Your task to perform on an android device: Go to calendar. Show me events next week Image 0: 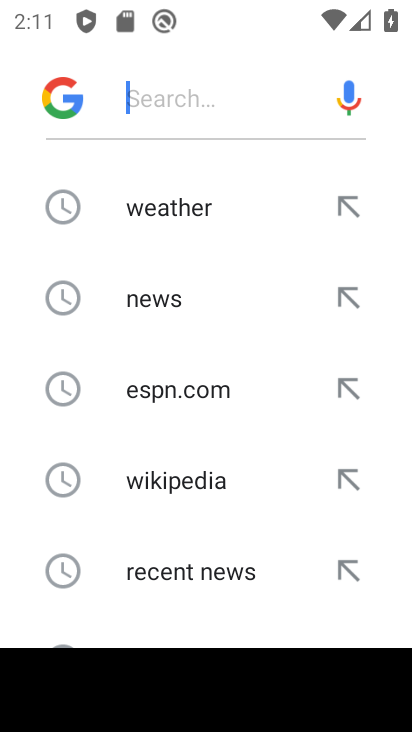
Step 0: press home button
Your task to perform on an android device: Go to calendar. Show me events next week Image 1: 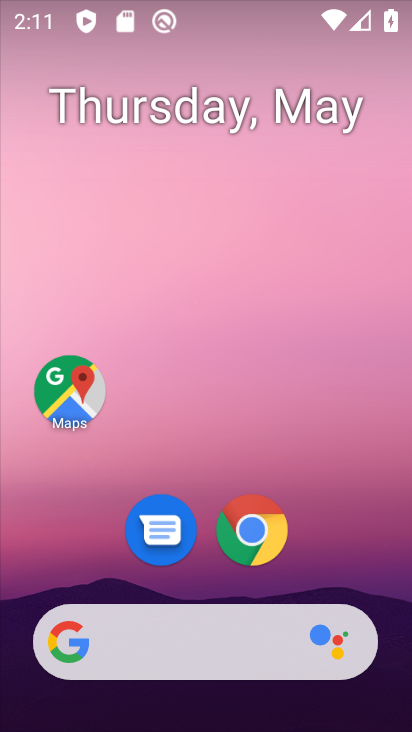
Step 1: drag from (180, 647) to (302, 175)
Your task to perform on an android device: Go to calendar. Show me events next week Image 2: 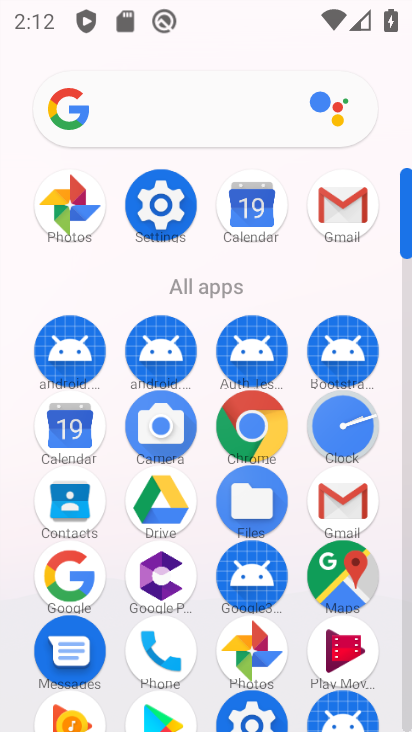
Step 2: click (260, 215)
Your task to perform on an android device: Go to calendar. Show me events next week Image 3: 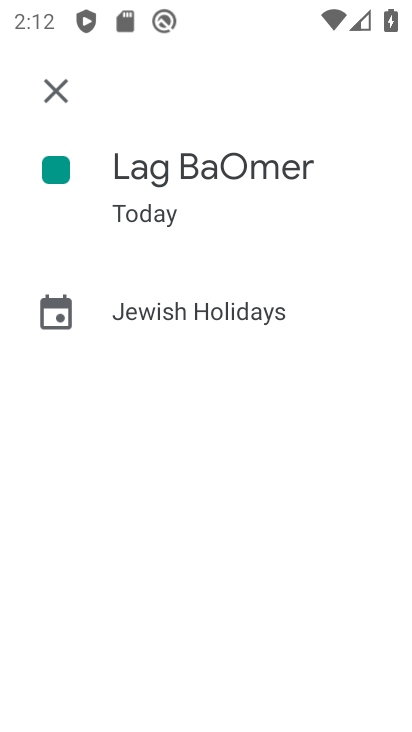
Step 3: click (59, 89)
Your task to perform on an android device: Go to calendar. Show me events next week Image 4: 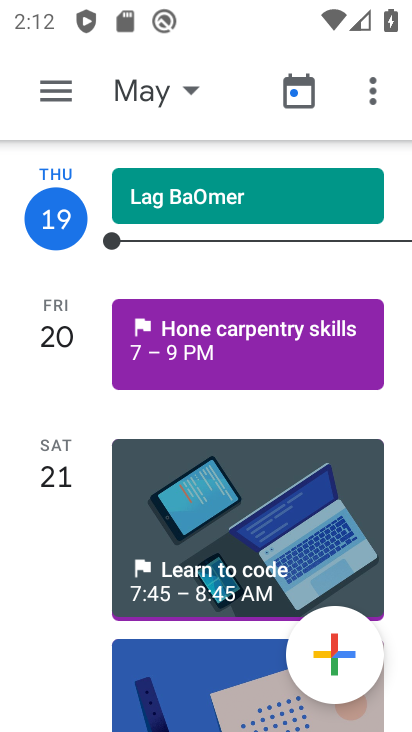
Step 4: click (159, 89)
Your task to perform on an android device: Go to calendar. Show me events next week Image 5: 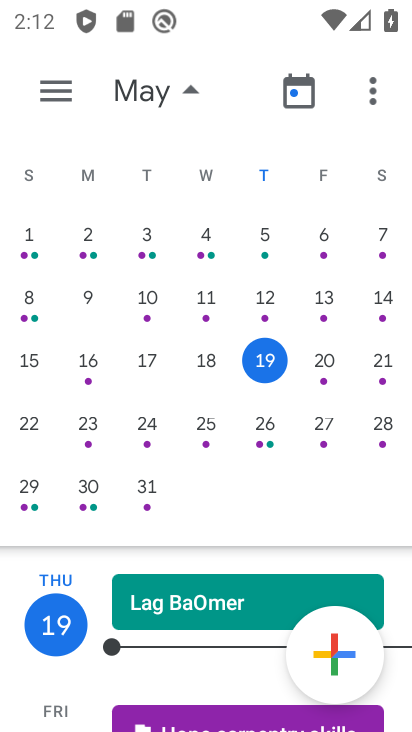
Step 5: click (32, 427)
Your task to perform on an android device: Go to calendar. Show me events next week Image 6: 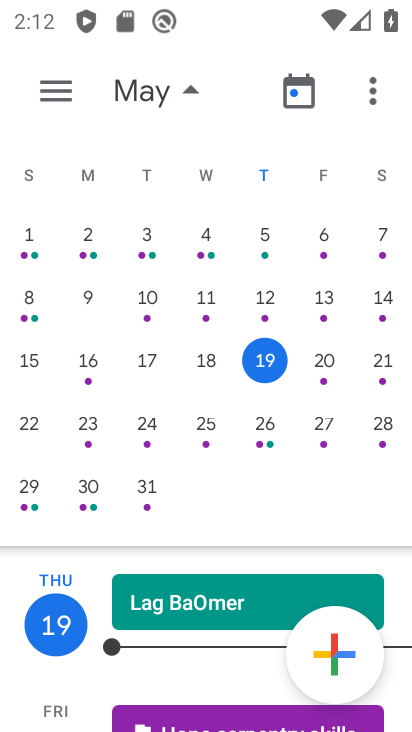
Step 6: click (30, 426)
Your task to perform on an android device: Go to calendar. Show me events next week Image 7: 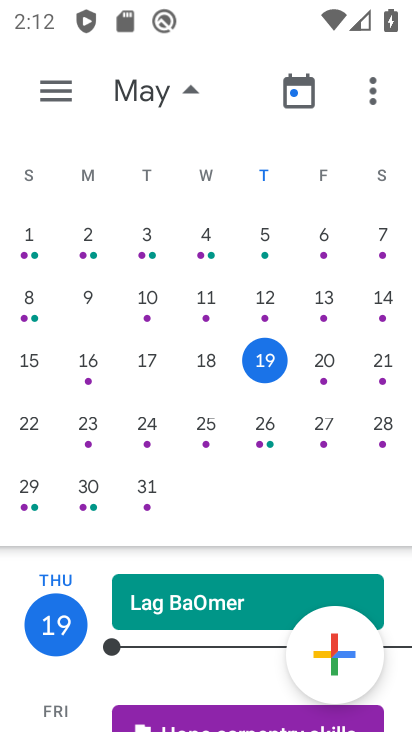
Step 7: click (36, 423)
Your task to perform on an android device: Go to calendar. Show me events next week Image 8: 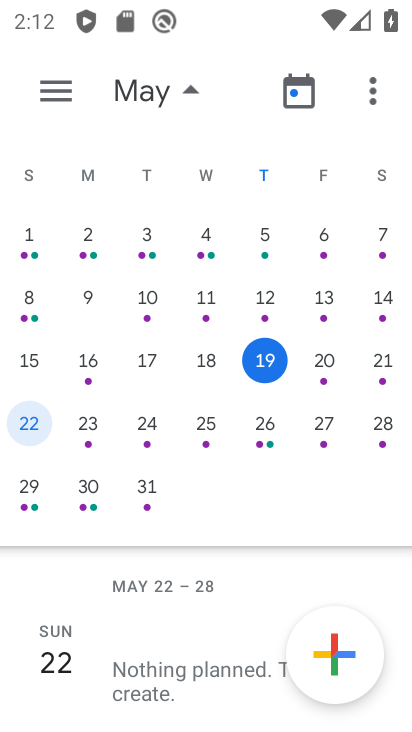
Step 8: click (68, 90)
Your task to perform on an android device: Go to calendar. Show me events next week Image 9: 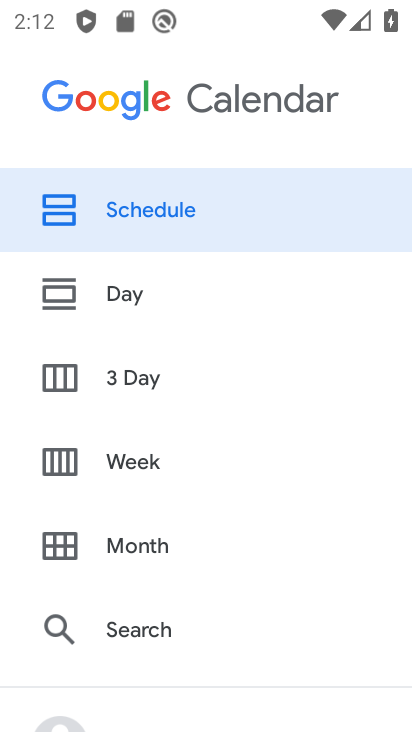
Step 9: click (129, 458)
Your task to perform on an android device: Go to calendar. Show me events next week Image 10: 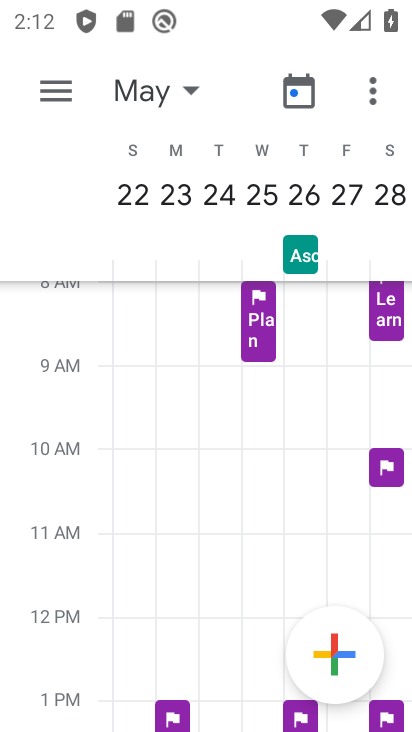
Step 10: click (64, 93)
Your task to perform on an android device: Go to calendar. Show me events next week Image 11: 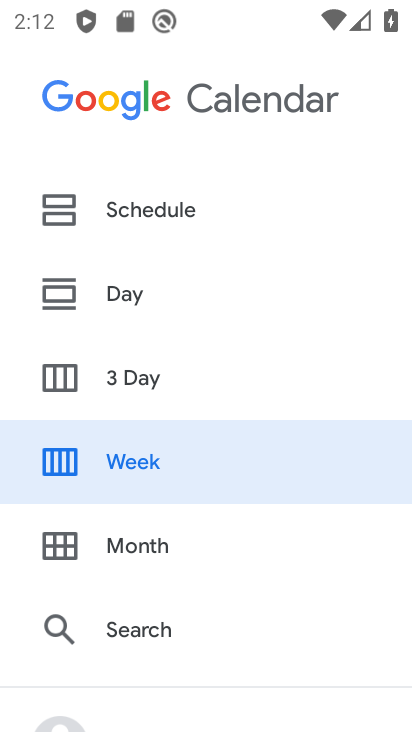
Step 11: click (127, 205)
Your task to perform on an android device: Go to calendar. Show me events next week Image 12: 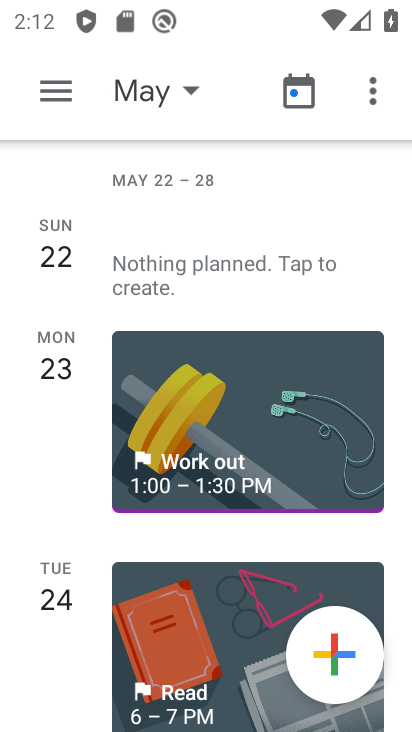
Step 12: drag from (237, 575) to (337, 142)
Your task to perform on an android device: Go to calendar. Show me events next week Image 13: 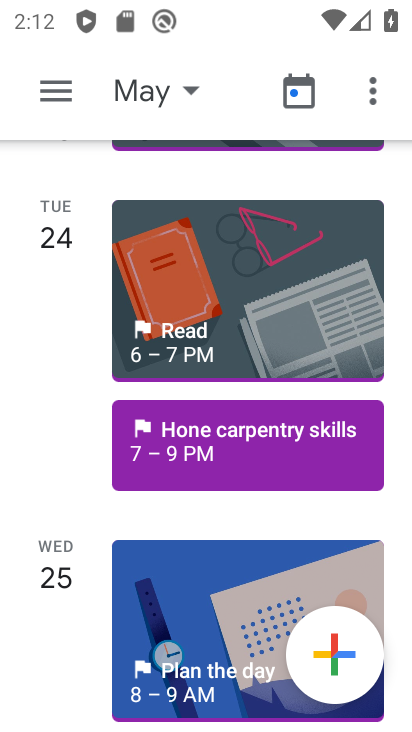
Step 13: click (236, 436)
Your task to perform on an android device: Go to calendar. Show me events next week Image 14: 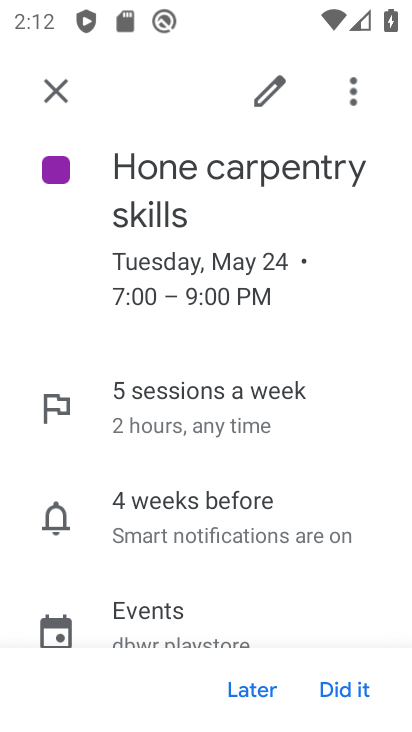
Step 14: task complete